Your task to perform on an android device: turn notification dots off Image 0: 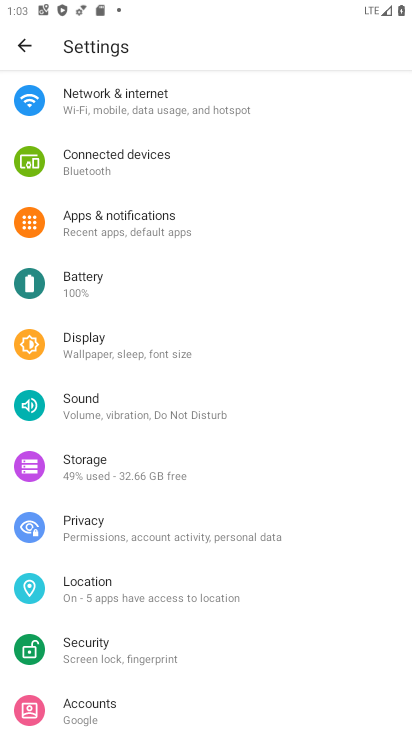
Step 0: click (158, 231)
Your task to perform on an android device: turn notification dots off Image 1: 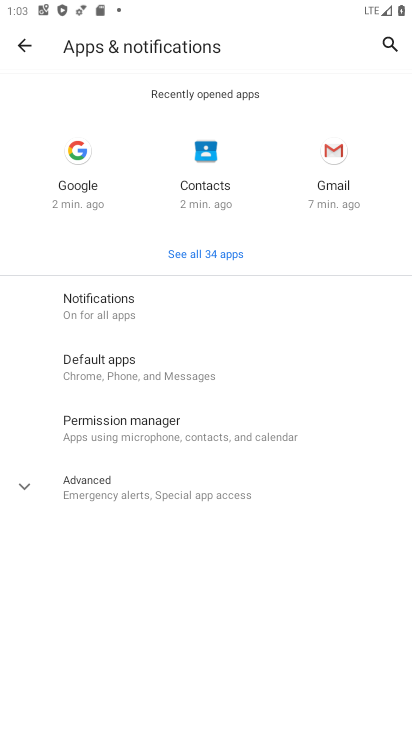
Step 1: click (116, 301)
Your task to perform on an android device: turn notification dots off Image 2: 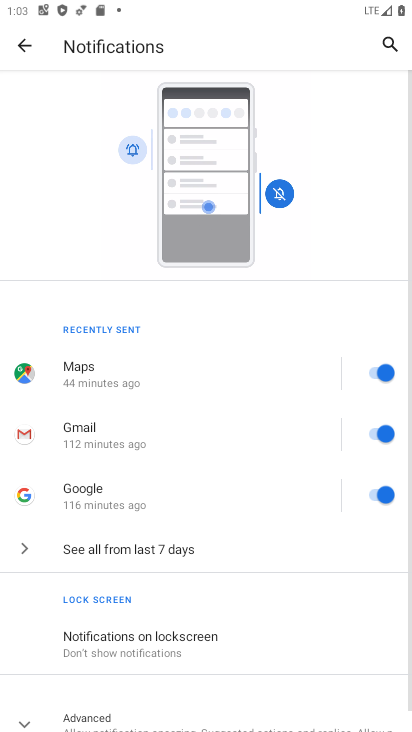
Step 2: drag from (136, 658) to (169, 96)
Your task to perform on an android device: turn notification dots off Image 3: 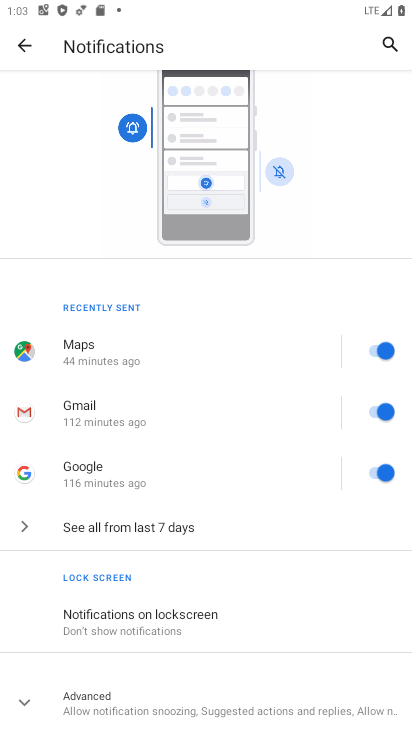
Step 3: click (110, 691)
Your task to perform on an android device: turn notification dots off Image 4: 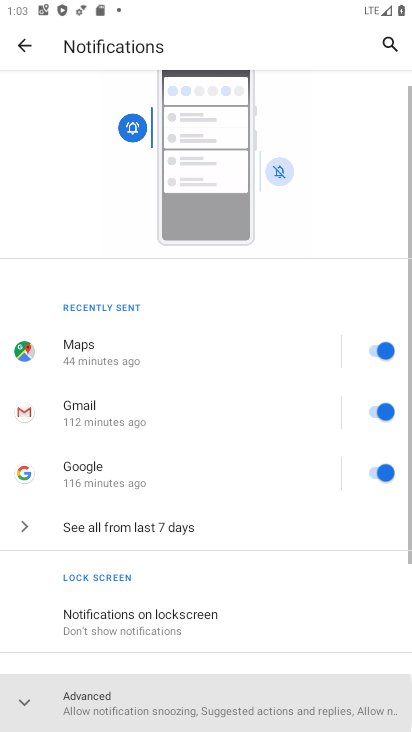
Step 4: drag from (124, 700) to (184, 163)
Your task to perform on an android device: turn notification dots off Image 5: 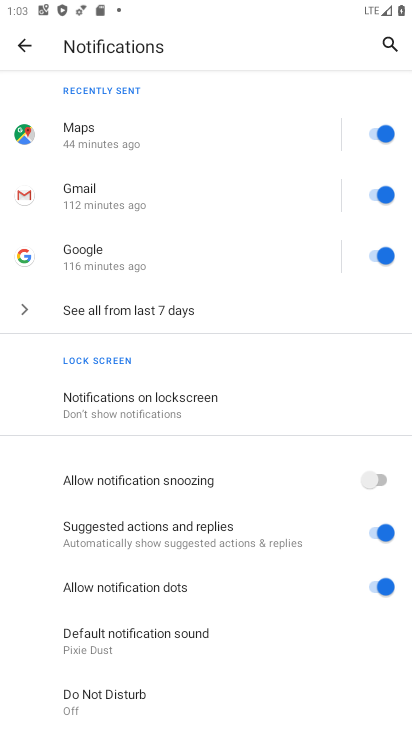
Step 5: click (349, 582)
Your task to perform on an android device: turn notification dots off Image 6: 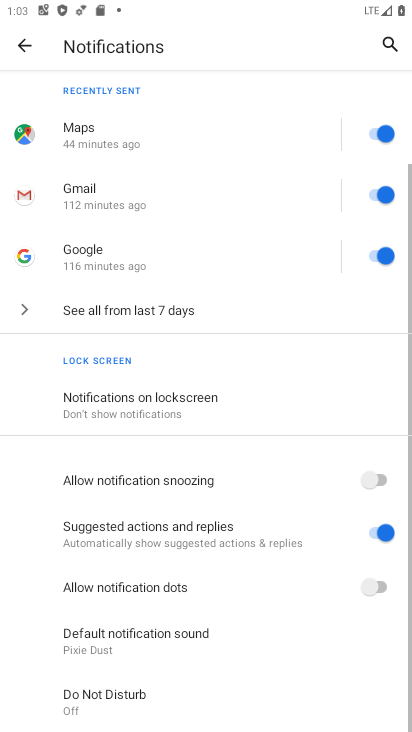
Step 6: task complete